Your task to perform on an android device: open app "LiveIn - Share Your Moment" Image 0: 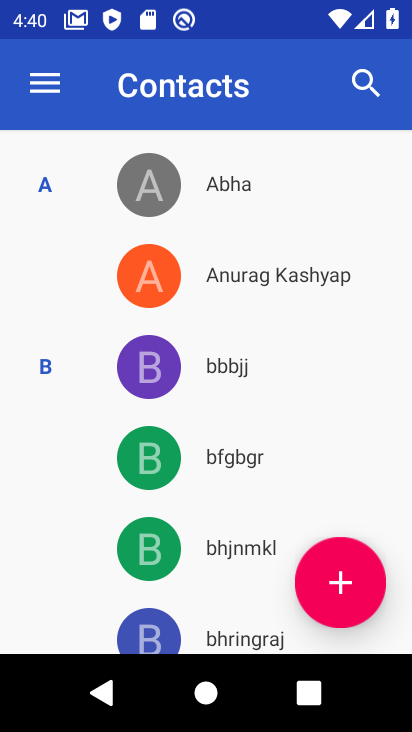
Step 0: press home button
Your task to perform on an android device: open app "LiveIn - Share Your Moment" Image 1: 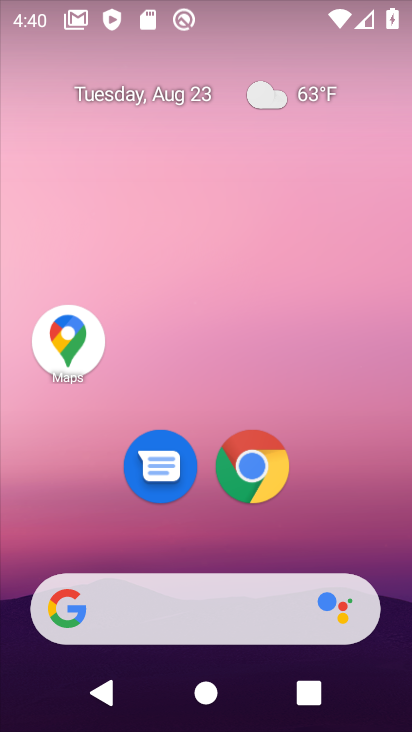
Step 1: drag from (187, 557) to (226, 6)
Your task to perform on an android device: open app "LiveIn - Share Your Moment" Image 2: 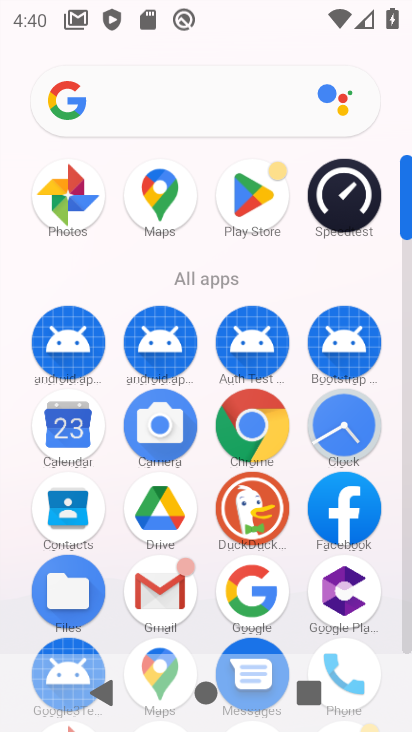
Step 2: click (252, 212)
Your task to perform on an android device: open app "LiveIn - Share Your Moment" Image 3: 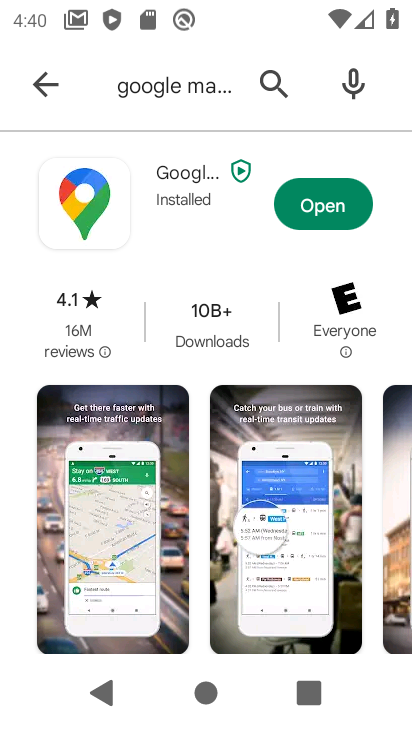
Step 3: click (177, 90)
Your task to perform on an android device: open app "LiveIn - Share Your Moment" Image 4: 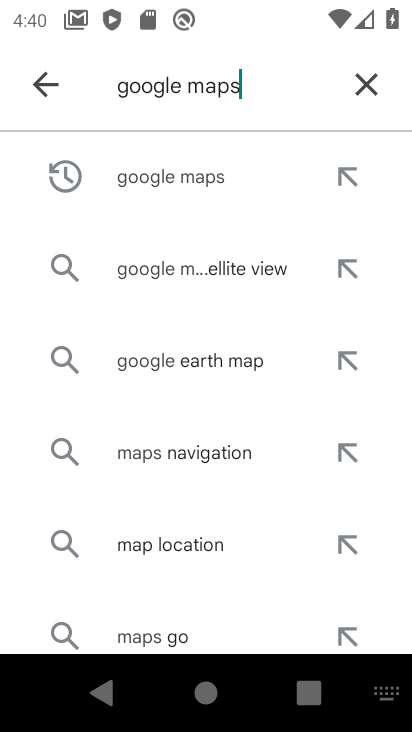
Step 4: click (364, 79)
Your task to perform on an android device: open app "LiveIn - Share Your Moment" Image 5: 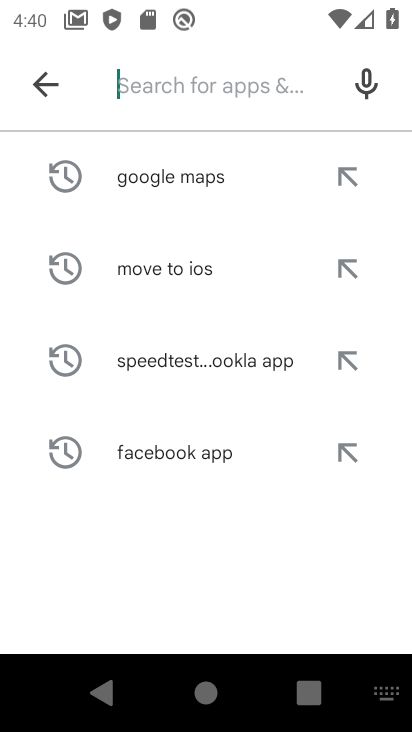
Step 5: type "LiveIn"
Your task to perform on an android device: open app "LiveIn - Share Your Moment" Image 6: 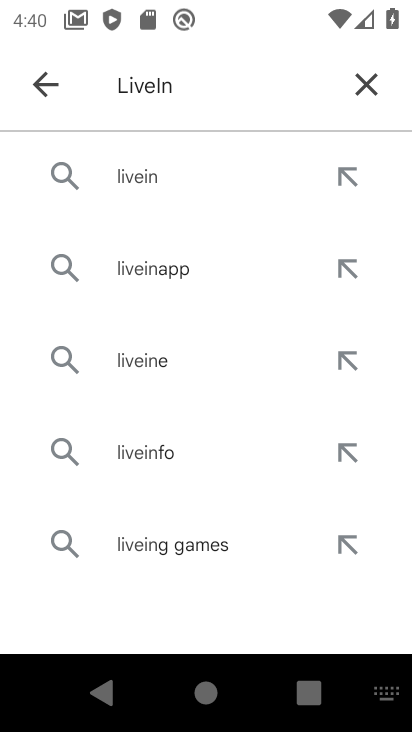
Step 6: click (131, 176)
Your task to perform on an android device: open app "LiveIn - Share Your Moment" Image 7: 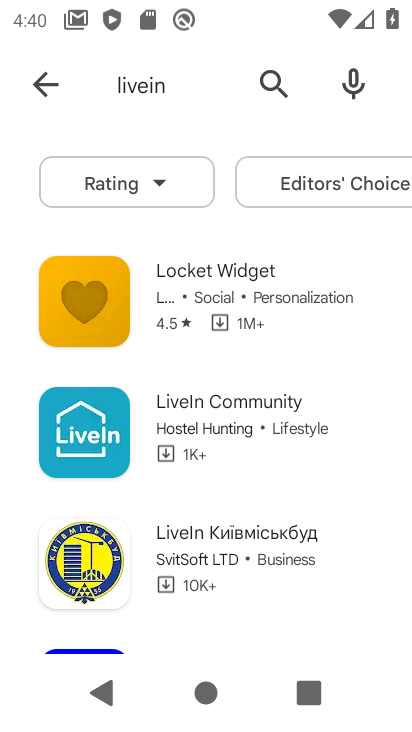
Step 7: task complete